Your task to perform on an android device: turn off data saver in the chrome app Image 0: 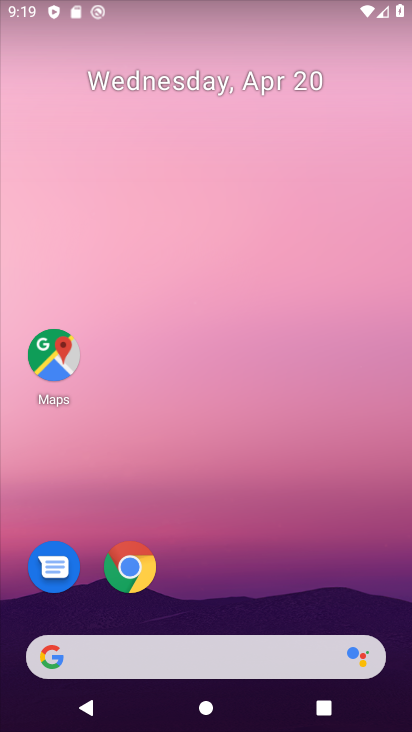
Step 0: drag from (340, 578) to (341, 169)
Your task to perform on an android device: turn off data saver in the chrome app Image 1: 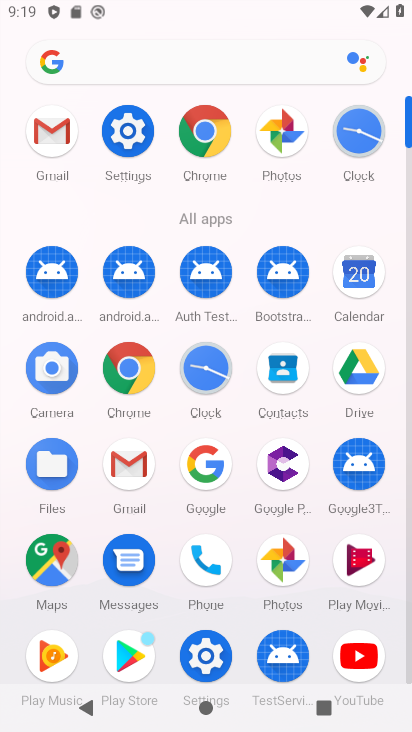
Step 1: click (130, 372)
Your task to perform on an android device: turn off data saver in the chrome app Image 2: 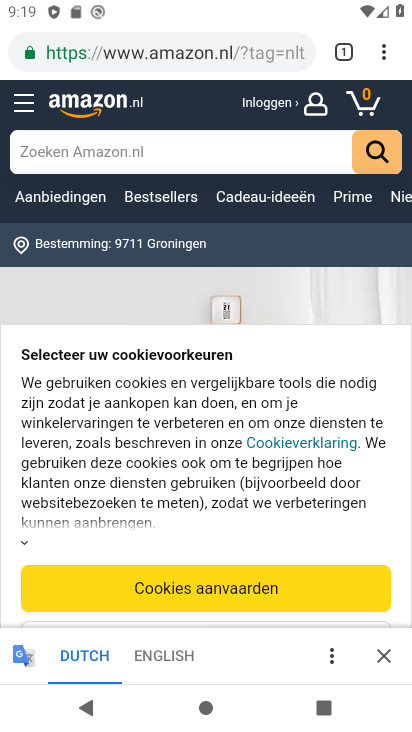
Step 2: click (386, 54)
Your task to perform on an android device: turn off data saver in the chrome app Image 3: 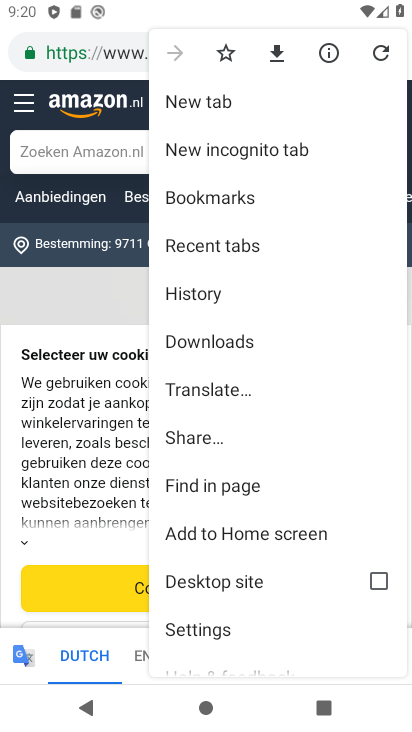
Step 3: drag from (361, 474) to (352, 281)
Your task to perform on an android device: turn off data saver in the chrome app Image 4: 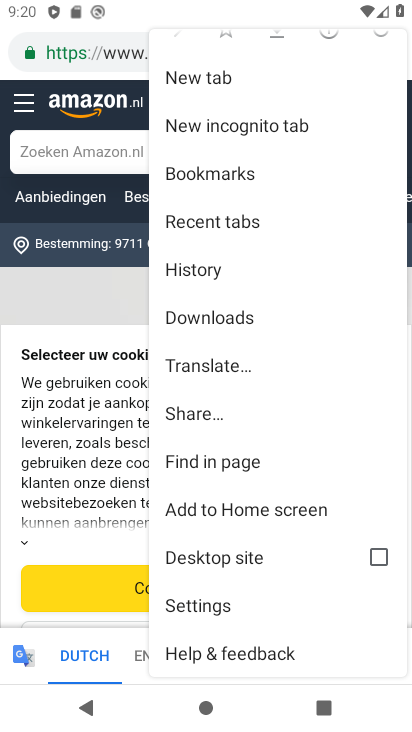
Step 4: click (216, 608)
Your task to perform on an android device: turn off data saver in the chrome app Image 5: 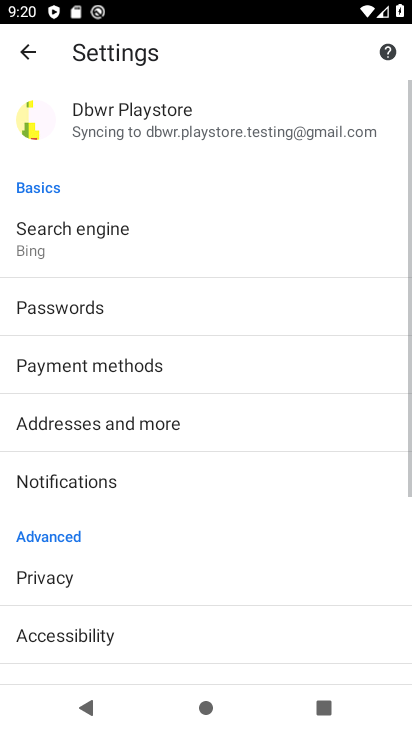
Step 5: drag from (251, 573) to (287, 380)
Your task to perform on an android device: turn off data saver in the chrome app Image 6: 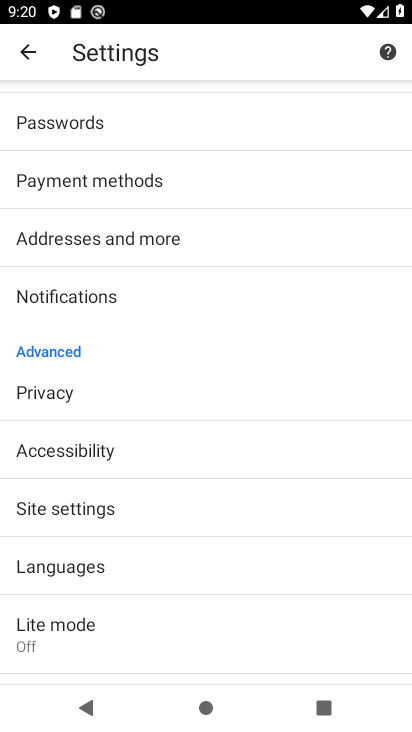
Step 6: drag from (283, 618) to (315, 413)
Your task to perform on an android device: turn off data saver in the chrome app Image 7: 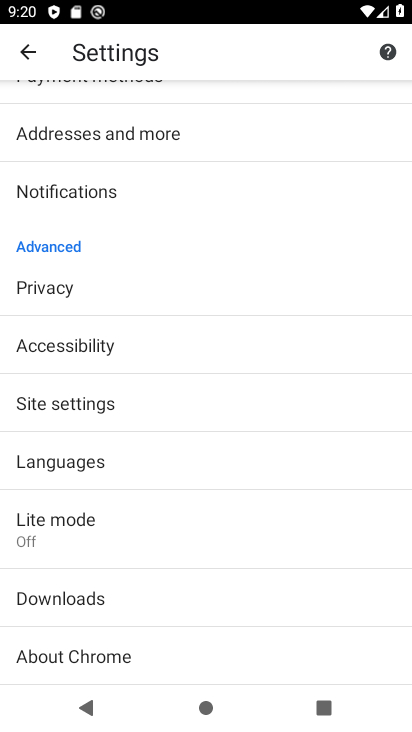
Step 7: click (259, 527)
Your task to perform on an android device: turn off data saver in the chrome app Image 8: 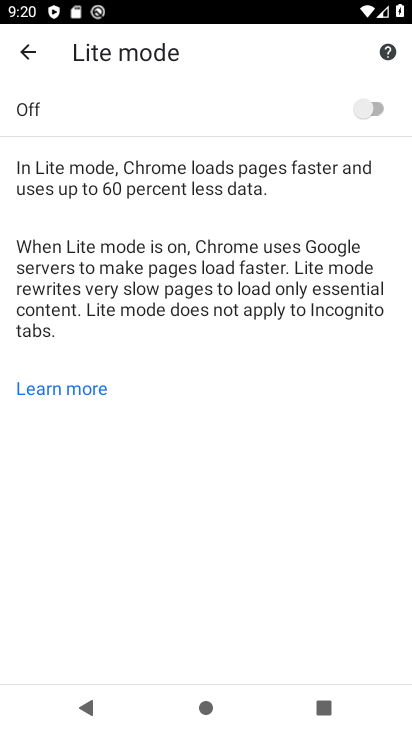
Step 8: task complete